Your task to perform on an android device: Open settings Image 0: 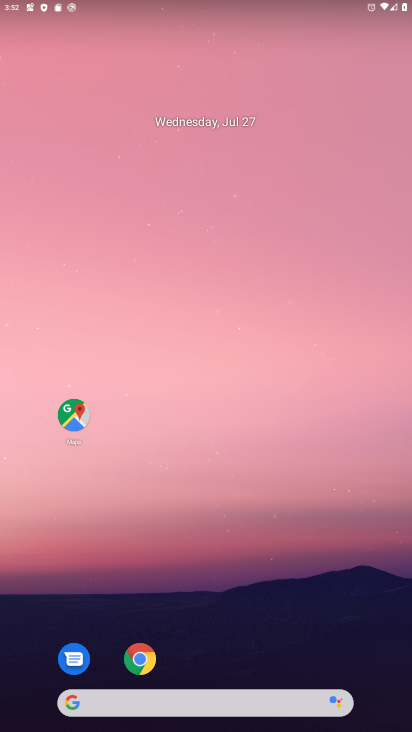
Step 0: click (310, 453)
Your task to perform on an android device: Open settings Image 1: 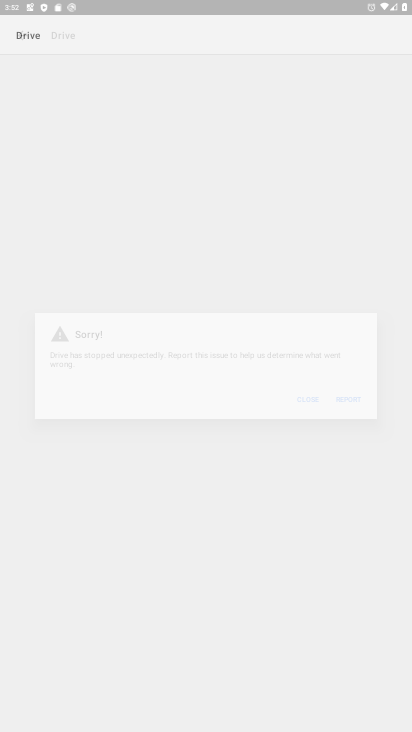
Step 1: drag from (301, 656) to (397, 17)
Your task to perform on an android device: Open settings Image 2: 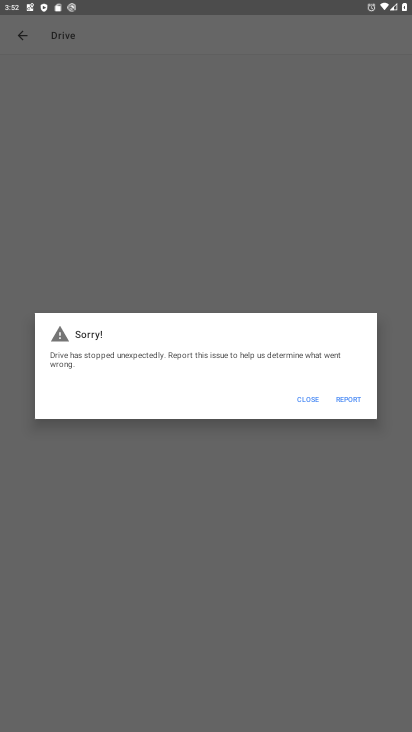
Step 2: press home button
Your task to perform on an android device: Open settings Image 3: 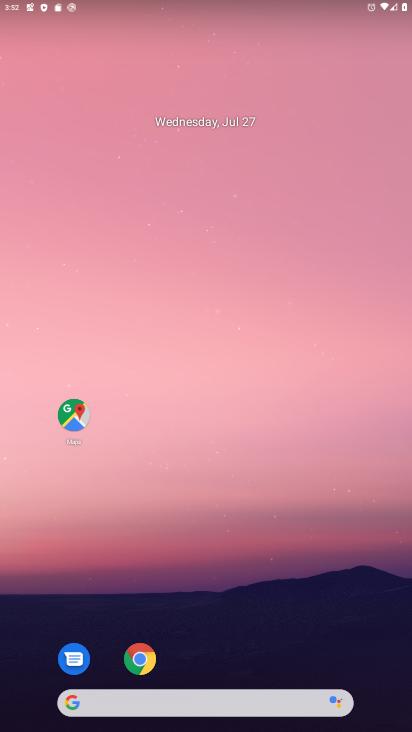
Step 3: drag from (263, 611) to (286, 141)
Your task to perform on an android device: Open settings Image 4: 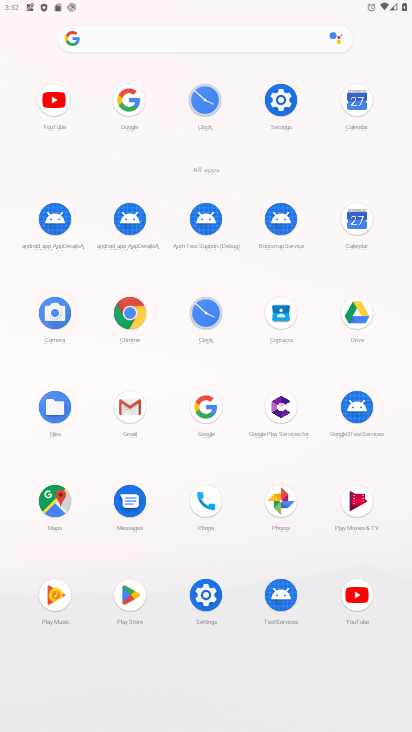
Step 4: click (282, 109)
Your task to perform on an android device: Open settings Image 5: 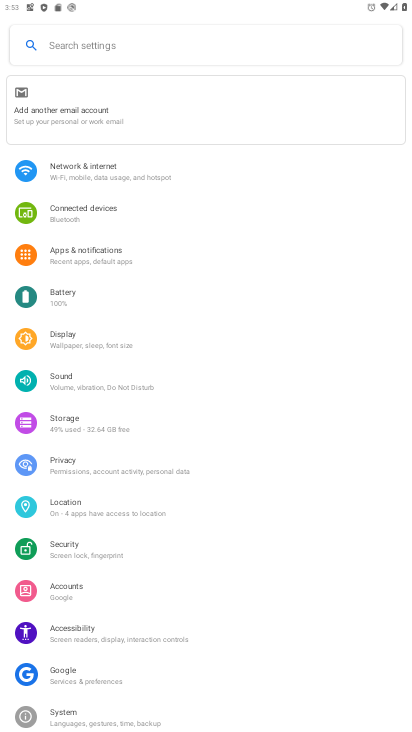
Step 5: task complete